Your task to perform on an android device: check out phone information Image 0: 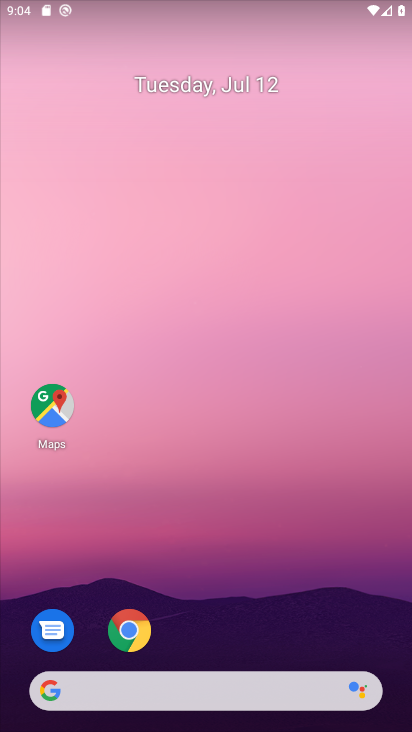
Step 0: drag from (236, 344) to (299, 91)
Your task to perform on an android device: check out phone information Image 1: 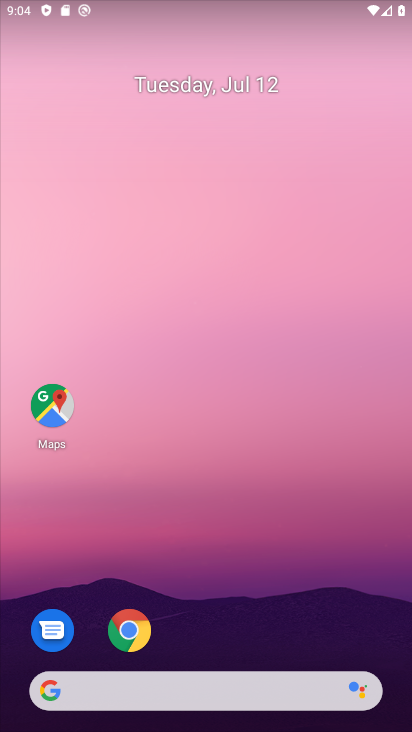
Step 1: drag from (189, 691) to (292, 183)
Your task to perform on an android device: check out phone information Image 2: 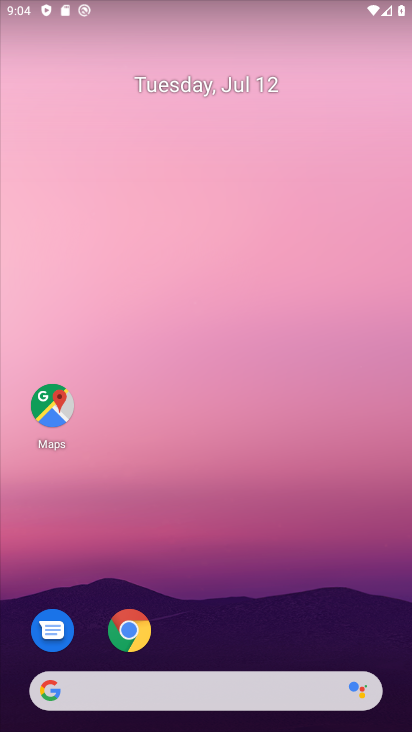
Step 2: drag from (153, 690) to (262, 72)
Your task to perform on an android device: check out phone information Image 3: 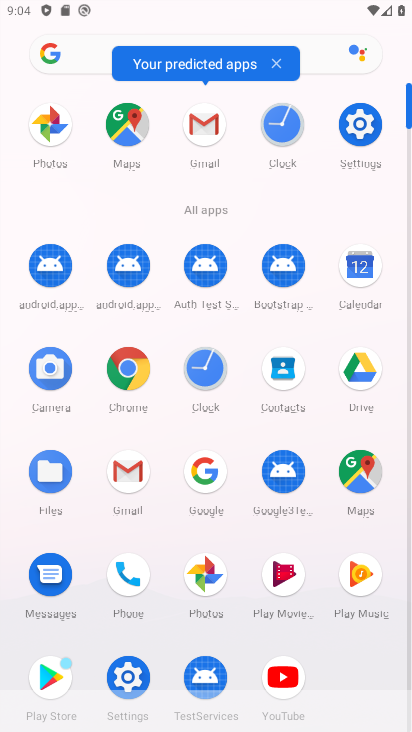
Step 3: click (361, 131)
Your task to perform on an android device: check out phone information Image 4: 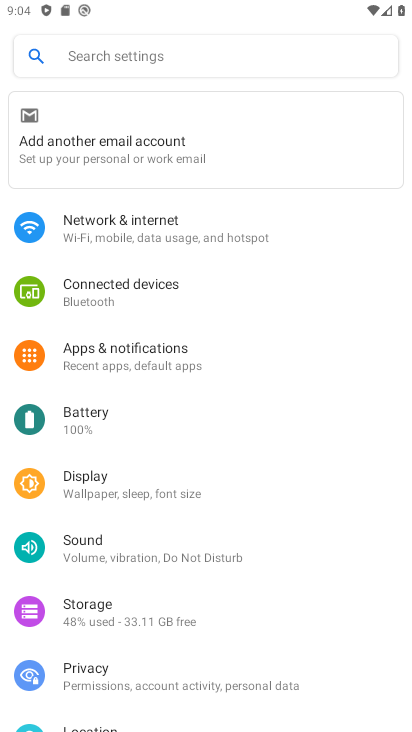
Step 4: drag from (186, 651) to (320, 189)
Your task to perform on an android device: check out phone information Image 5: 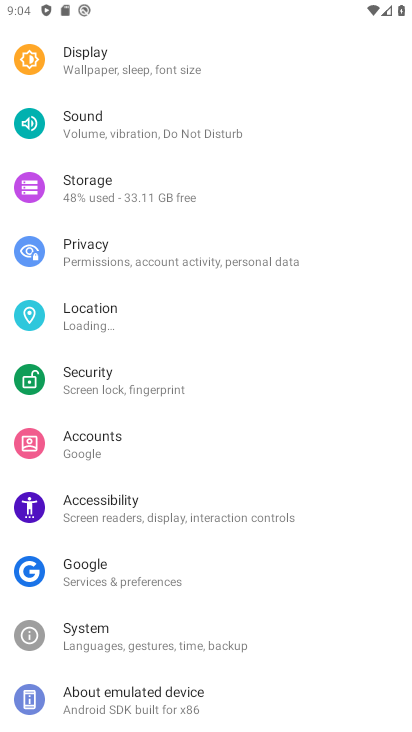
Step 5: click (164, 699)
Your task to perform on an android device: check out phone information Image 6: 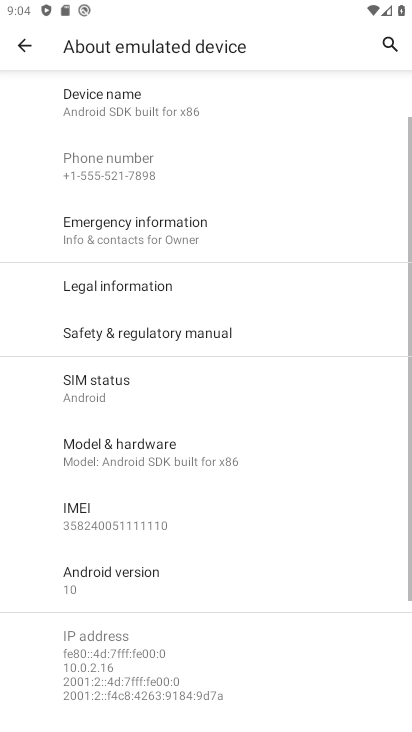
Step 6: task complete